Your task to perform on an android device: clear history in the chrome app Image 0: 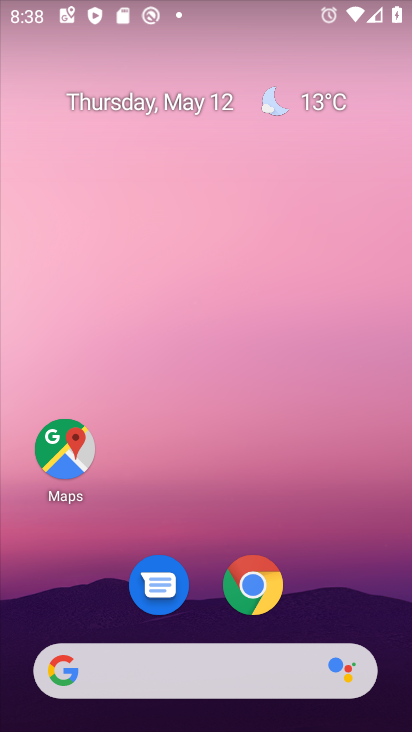
Step 0: click (251, 566)
Your task to perform on an android device: clear history in the chrome app Image 1: 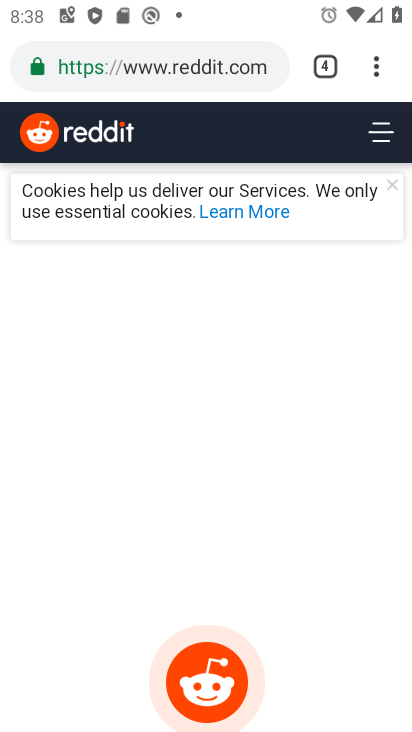
Step 1: click (370, 69)
Your task to perform on an android device: clear history in the chrome app Image 2: 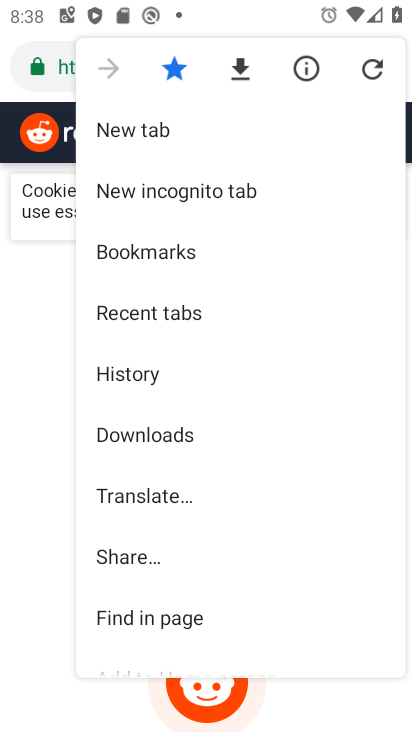
Step 2: click (153, 369)
Your task to perform on an android device: clear history in the chrome app Image 3: 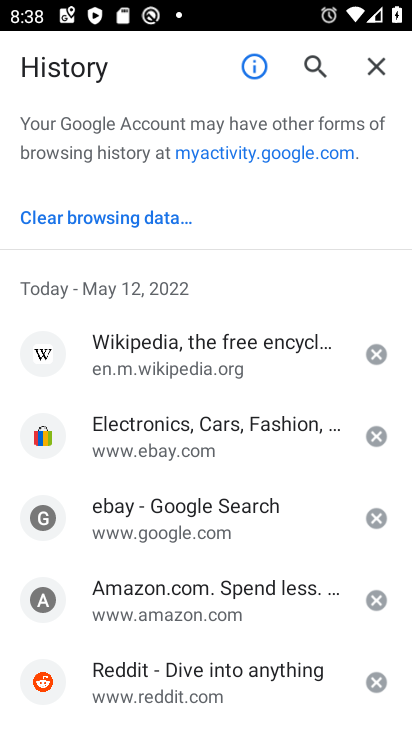
Step 3: click (140, 208)
Your task to perform on an android device: clear history in the chrome app Image 4: 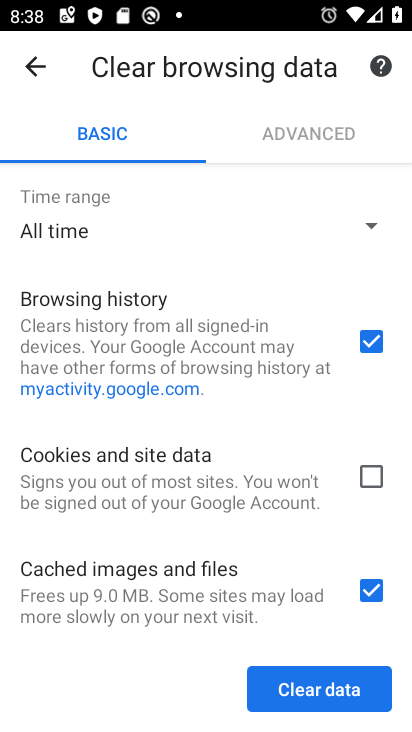
Step 4: click (374, 586)
Your task to perform on an android device: clear history in the chrome app Image 5: 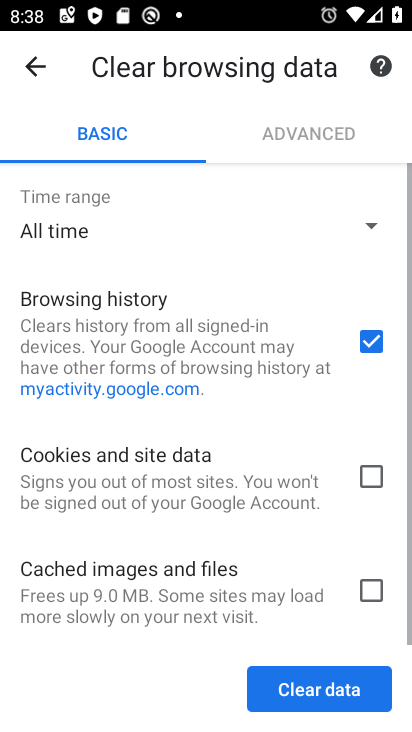
Step 5: click (321, 692)
Your task to perform on an android device: clear history in the chrome app Image 6: 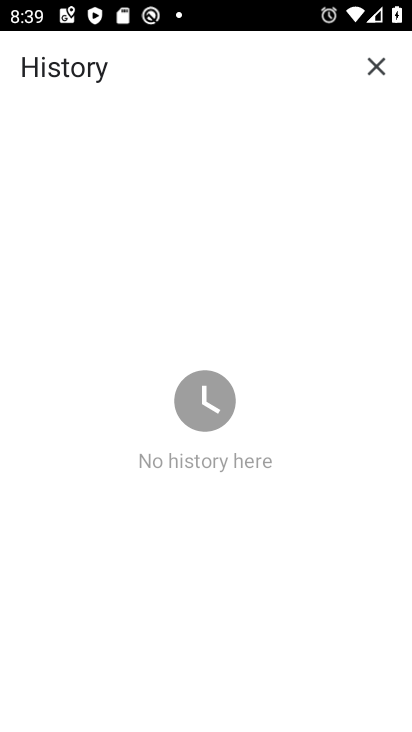
Step 6: task complete